Your task to perform on an android device: create a new album in the google photos Image 0: 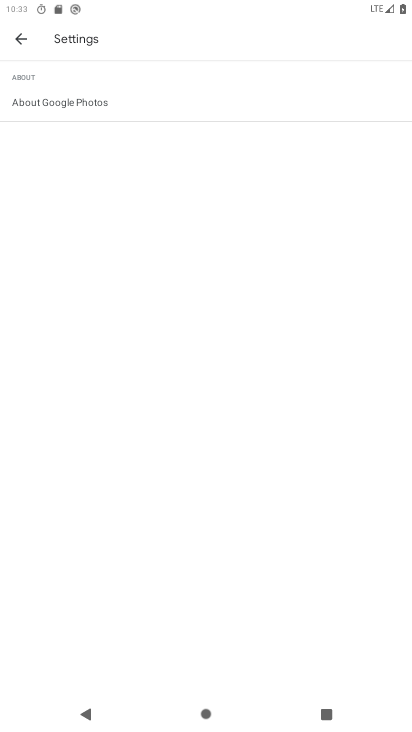
Step 0: press home button
Your task to perform on an android device: create a new album in the google photos Image 1: 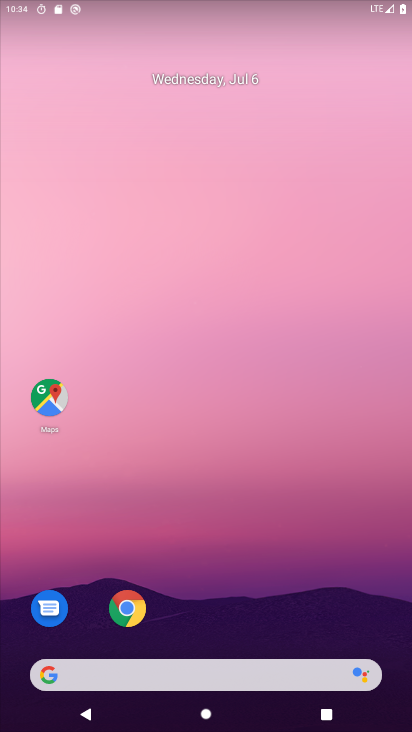
Step 1: drag from (209, 623) to (257, 4)
Your task to perform on an android device: create a new album in the google photos Image 2: 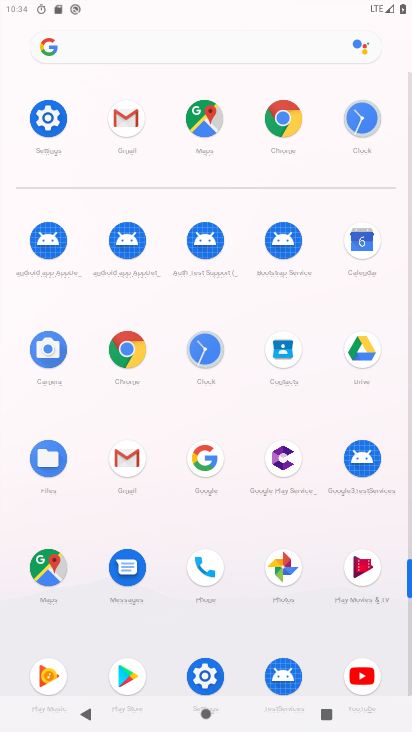
Step 2: click (269, 577)
Your task to perform on an android device: create a new album in the google photos Image 3: 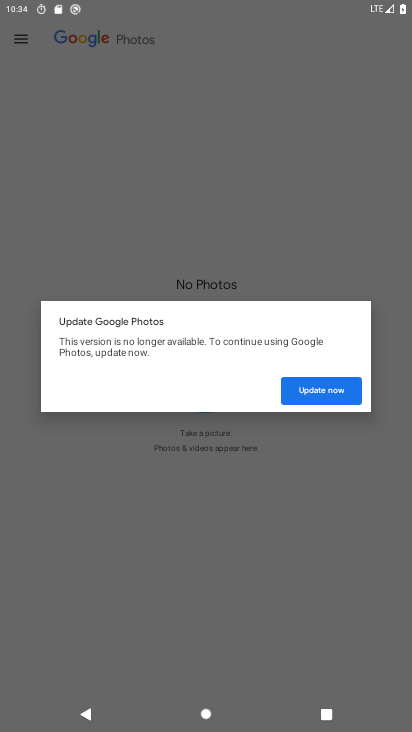
Step 3: click (217, 443)
Your task to perform on an android device: create a new album in the google photos Image 4: 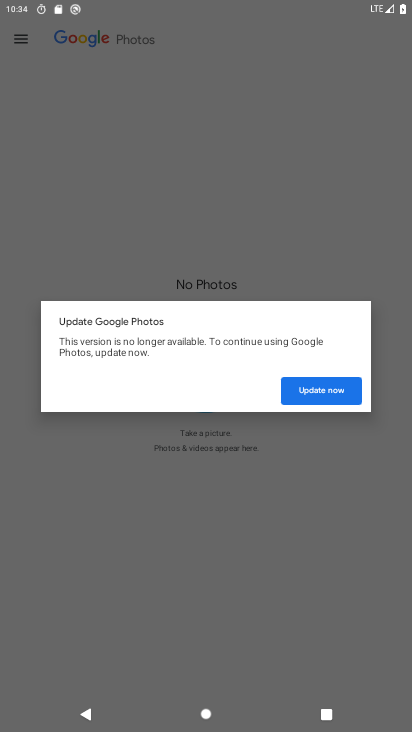
Step 4: click (318, 380)
Your task to perform on an android device: create a new album in the google photos Image 5: 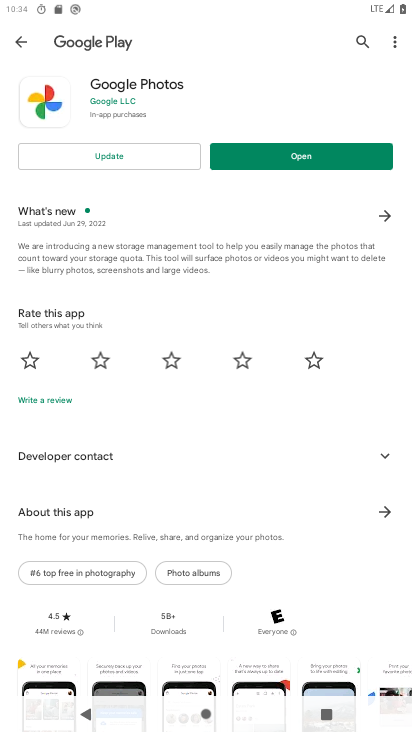
Step 5: click (280, 153)
Your task to perform on an android device: create a new album in the google photos Image 6: 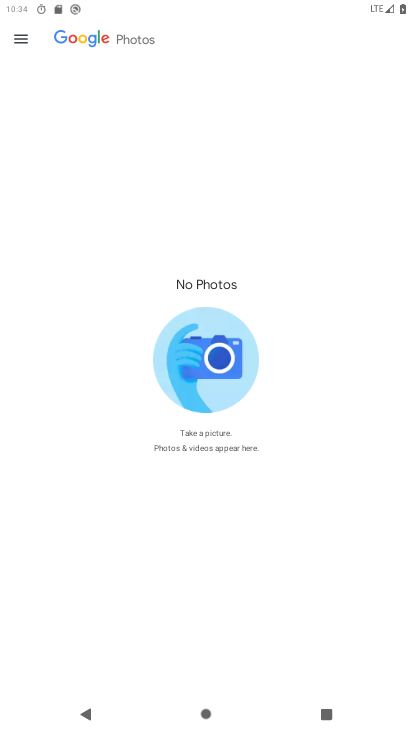
Step 6: click (283, 152)
Your task to perform on an android device: create a new album in the google photos Image 7: 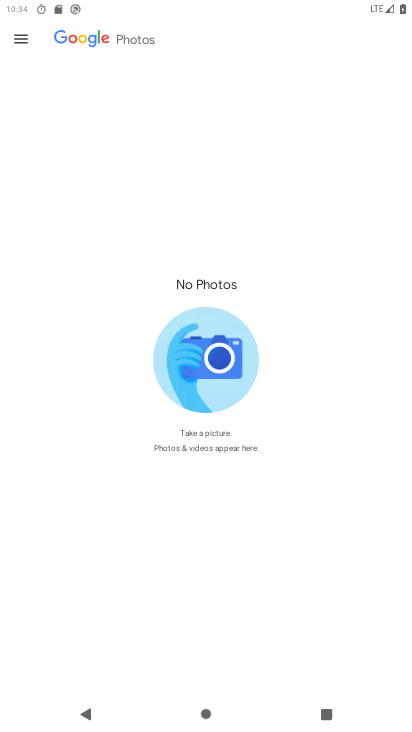
Step 7: click (24, 29)
Your task to perform on an android device: create a new album in the google photos Image 8: 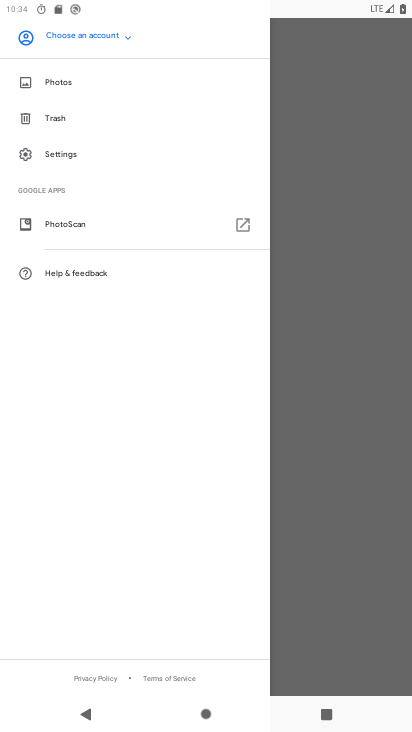
Step 8: click (106, 27)
Your task to perform on an android device: create a new album in the google photos Image 9: 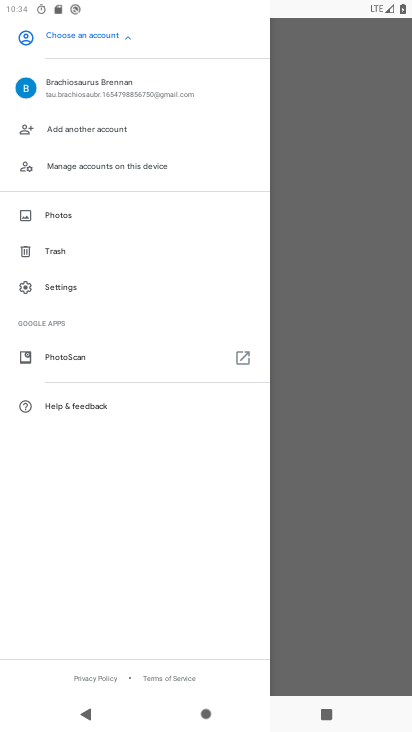
Step 9: click (119, 86)
Your task to perform on an android device: create a new album in the google photos Image 10: 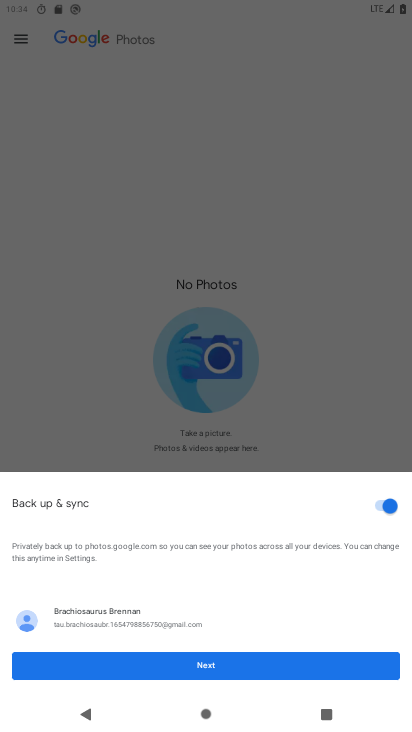
Step 10: click (224, 665)
Your task to perform on an android device: create a new album in the google photos Image 11: 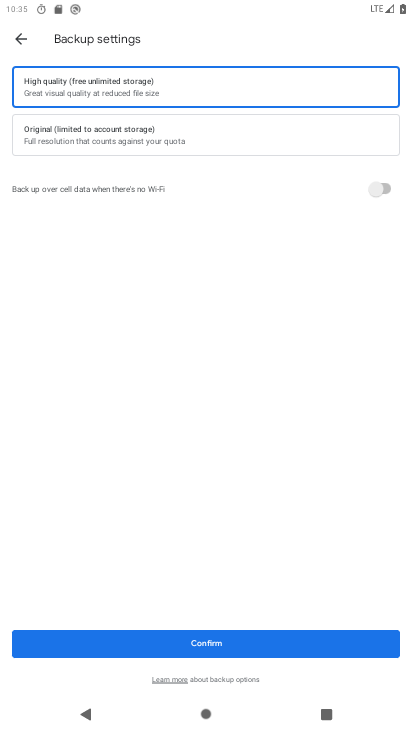
Step 11: click (207, 644)
Your task to perform on an android device: create a new album in the google photos Image 12: 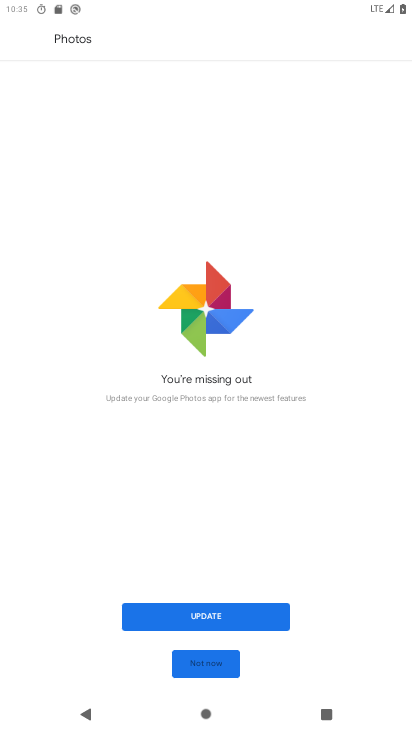
Step 12: click (224, 661)
Your task to perform on an android device: create a new album in the google photos Image 13: 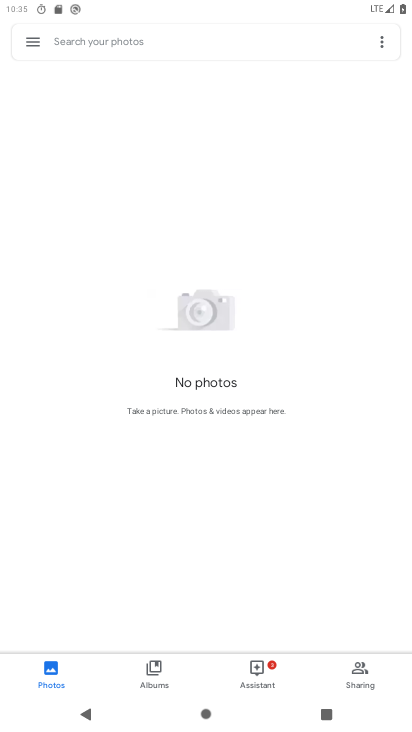
Step 13: click (157, 673)
Your task to perform on an android device: create a new album in the google photos Image 14: 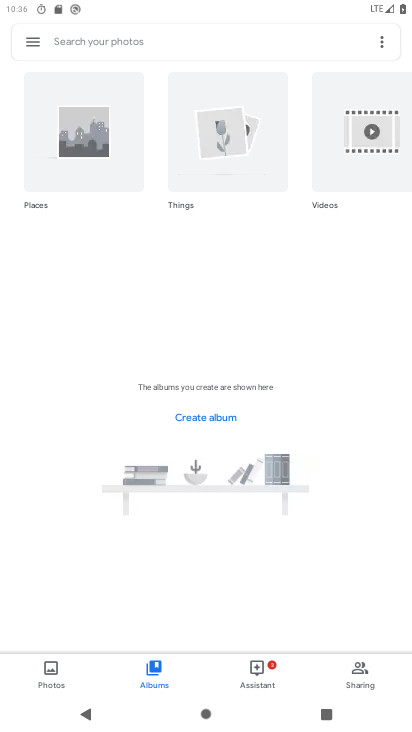
Step 14: task complete